Your task to perform on an android device: toggle javascript in the chrome app Image 0: 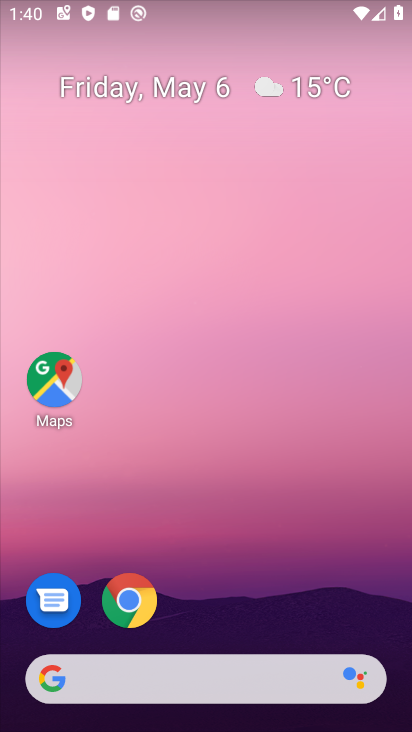
Step 0: drag from (319, 566) to (248, 20)
Your task to perform on an android device: toggle javascript in the chrome app Image 1: 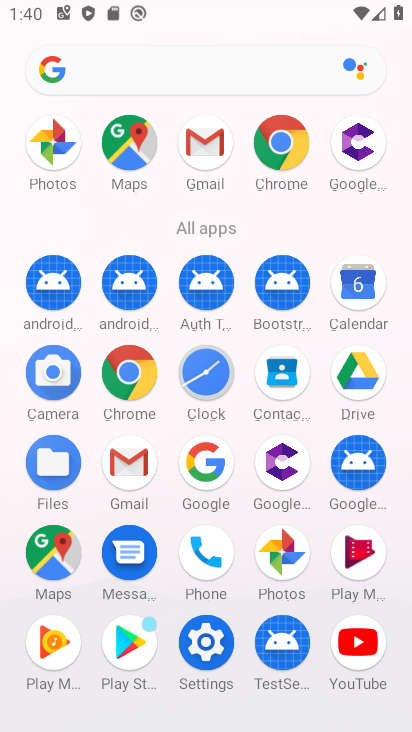
Step 1: drag from (10, 549) to (9, 281)
Your task to perform on an android device: toggle javascript in the chrome app Image 2: 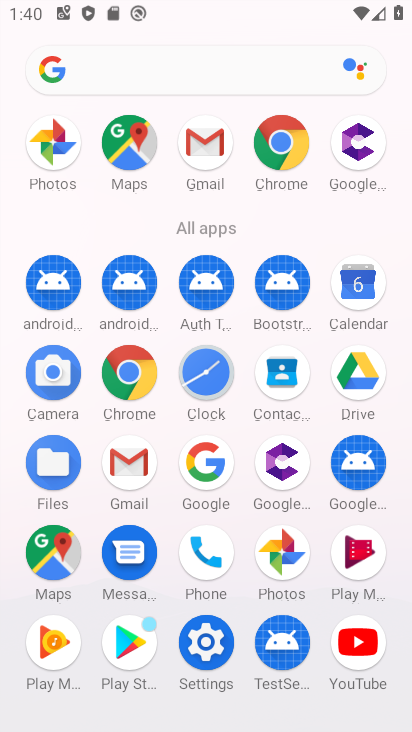
Step 2: drag from (2, 582) to (16, 300)
Your task to perform on an android device: toggle javascript in the chrome app Image 3: 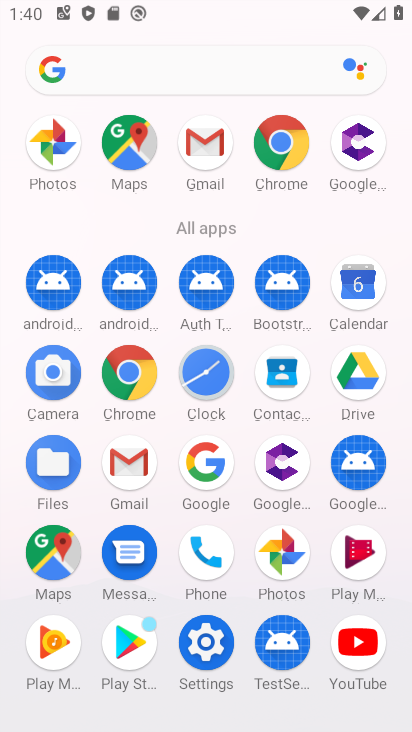
Step 3: click (281, 141)
Your task to perform on an android device: toggle javascript in the chrome app Image 4: 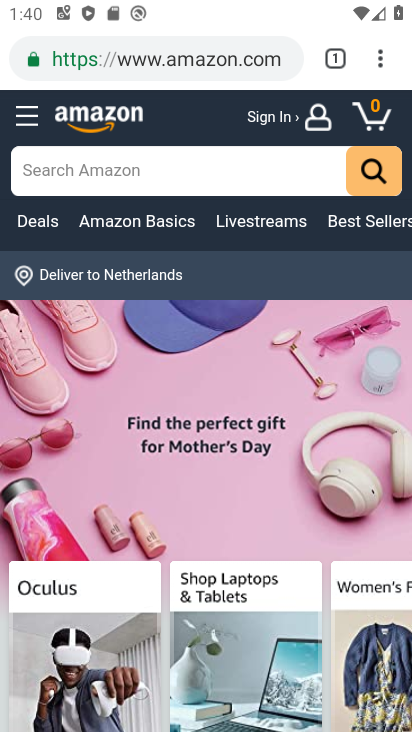
Step 4: drag from (381, 61) to (183, 624)
Your task to perform on an android device: toggle javascript in the chrome app Image 5: 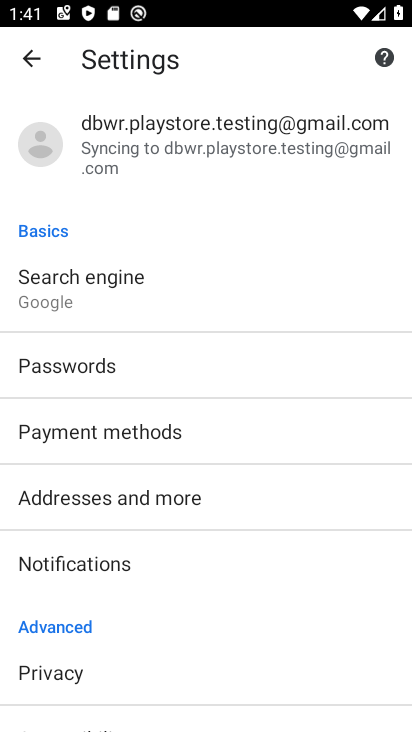
Step 5: drag from (279, 579) to (304, 164)
Your task to perform on an android device: toggle javascript in the chrome app Image 6: 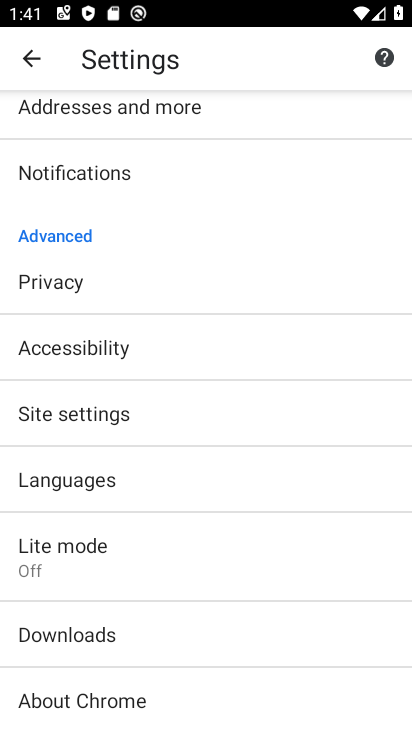
Step 6: drag from (206, 614) to (244, 128)
Your task to perform on an android device: toggle javascript in the chrome app Image 7: 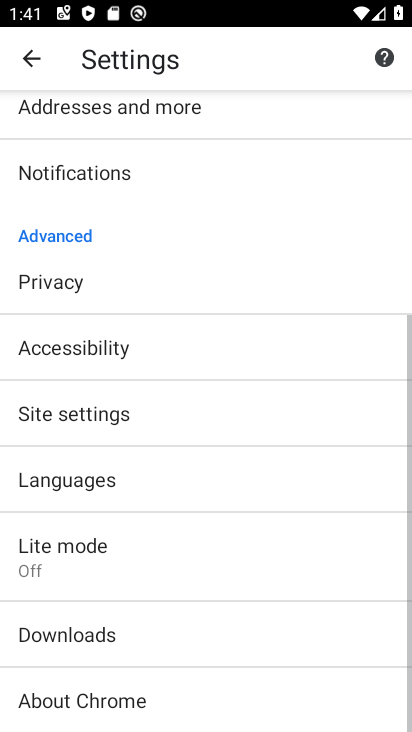
Step 7: drag from (233, 152) to (266, 582)
Your task to perform on an android device: toggle javascript in the chrome app Image 8: 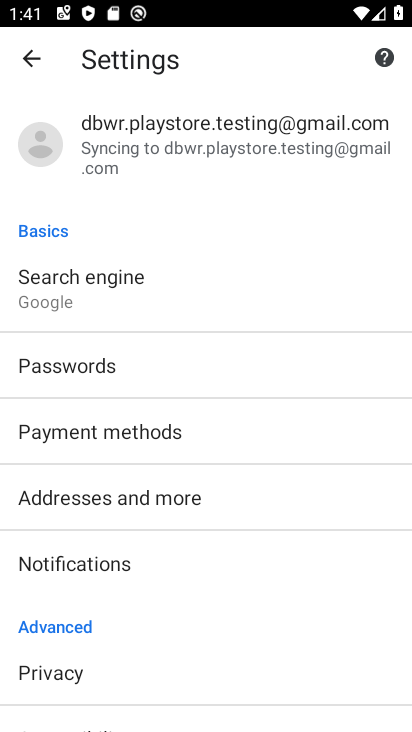
Step 8: drag from (247, 248) to (232, 576)
Your task to perform on an android device: toggle javascript in the chrome app Image 9: 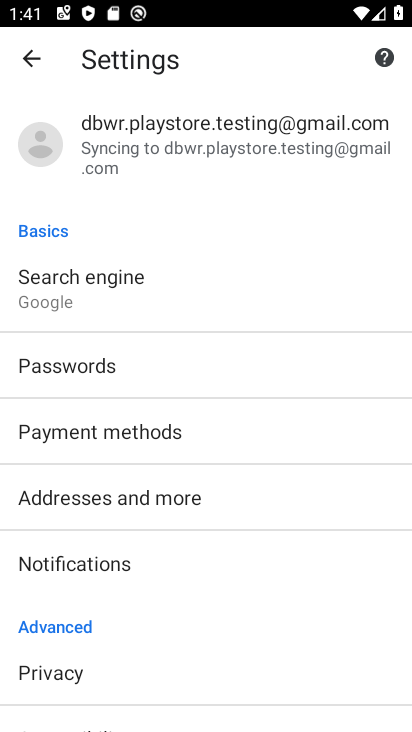
Step 9: drag from (273, 146) to (263, 533)
Your task to perform on an android device: toggle javascript in the chrome app Image 10: 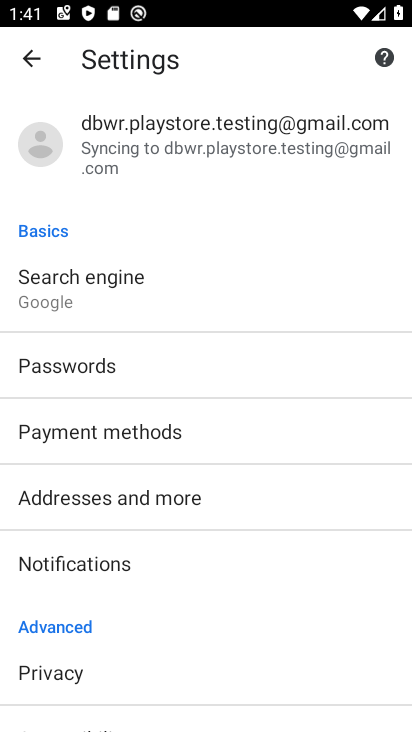
Step 10: drag from (251, 610) to (285, 135)
Your task to perform on an android device: toggle javascript in the chrome app Image 11: 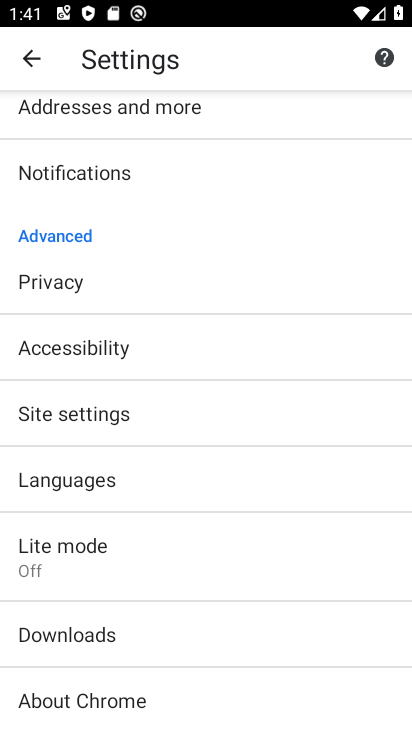
Step 11: drag from (213, 568) to (246, 158)
Your task to perform on an android device: toggle javascript in the chrome app Image 12: 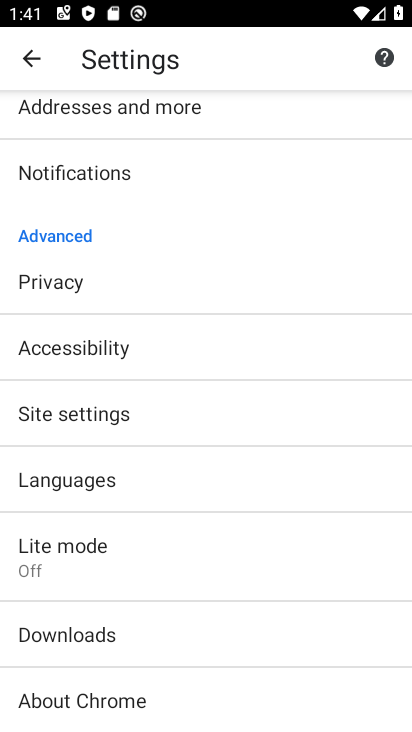
Step 12: drag from (243, 574) to (263, 142)
Your task to perform on an android device: toggle javascript in the chrome app Image 13: 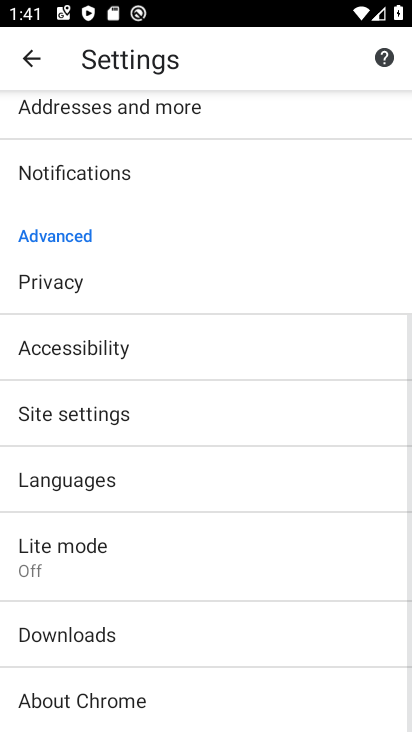
Step 13: drag from (264, 461) to (277, 133)
Your task to perform on an android device: toggle javascript in the chrome app Image 14: 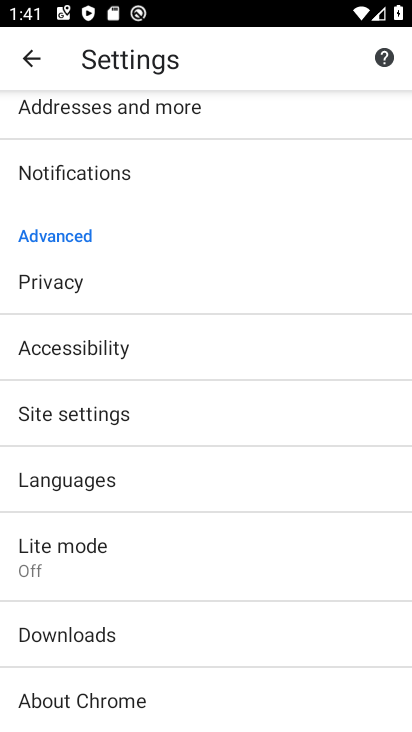
Step 14: click (122, 421)
Your task to perform on an android device: toggle javascript in the chrome app Image 15: 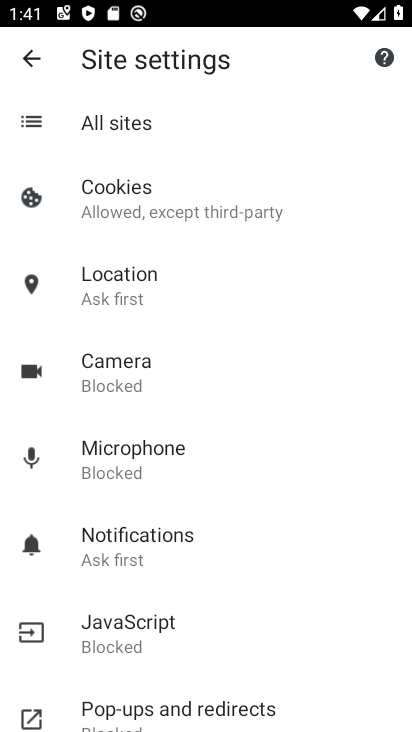
Step 15: click (173, 631)
Your task to perform on an android device: toggle javascript in the chrome app Image 16: 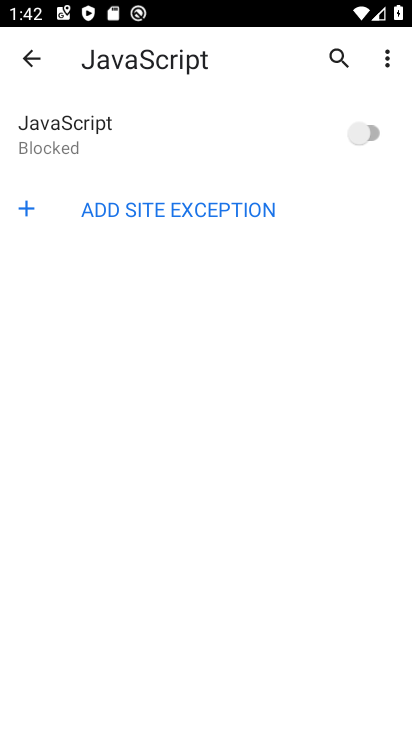
Step 16: click (355, 129)
Your task to perform on an android device: toggle javascript in the chrome app Image 17: 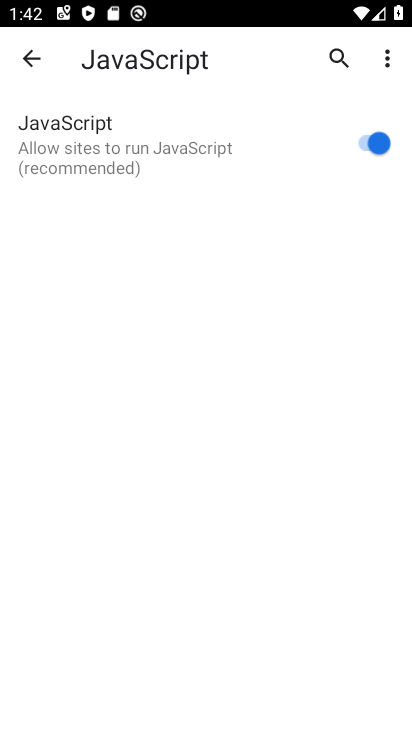
Step 17: task complete